Your task to perform on an android device: set default search engine in the chrome app Image 0: 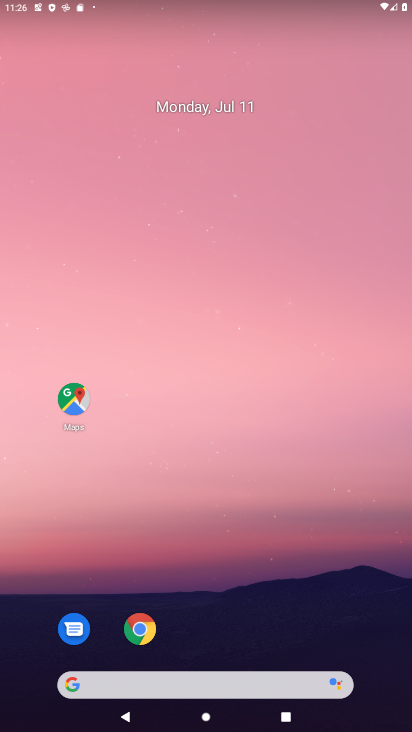
Step 0: click (155, 648)
Your task to perform on an android device: set default search engine in the chrome app Image 1: 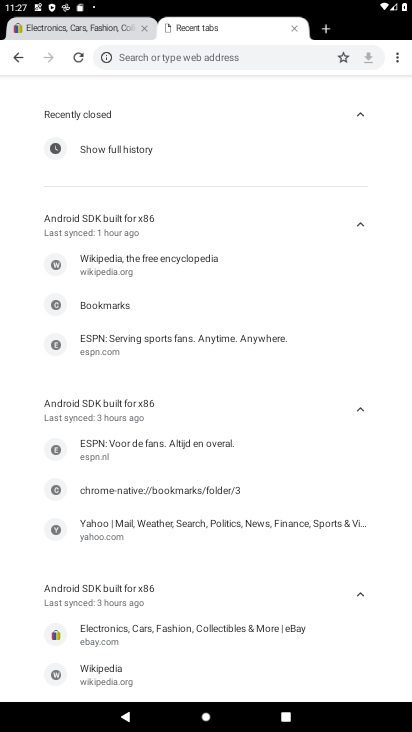
Step 1: click (400, 62)
Your task to perform on an android device: set default search engine in the chrome app Image 2: 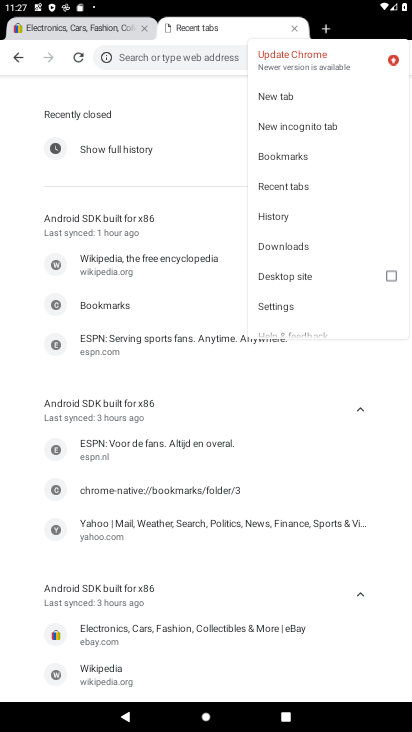
Step 2: click (301, 306)
Your task to perform on an android device: set default search engine in the chrome app Image 3: 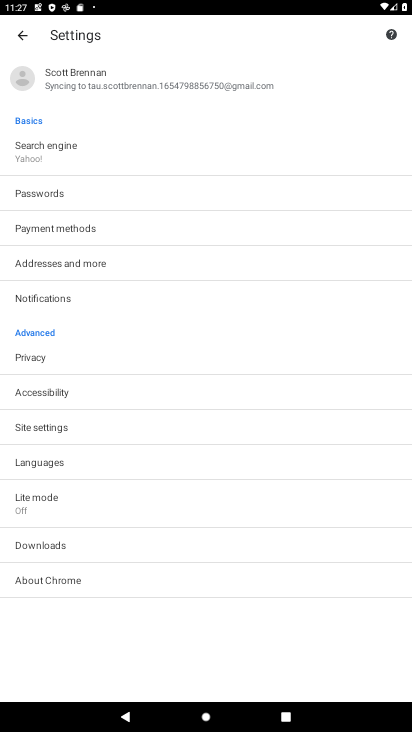
Step 3: click (86, 159)
Your task to perform on an android device: set default search engine in the chrome app Image 4: 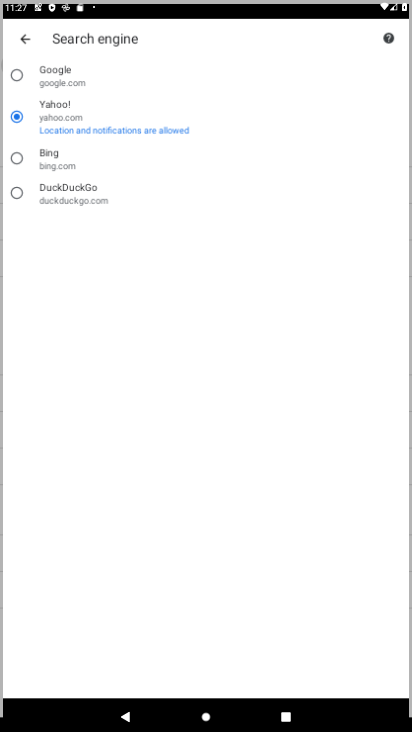
Step 4: click (33, 145)
Your task to perform on an android device: set default search engine in the chrome app Image 5: 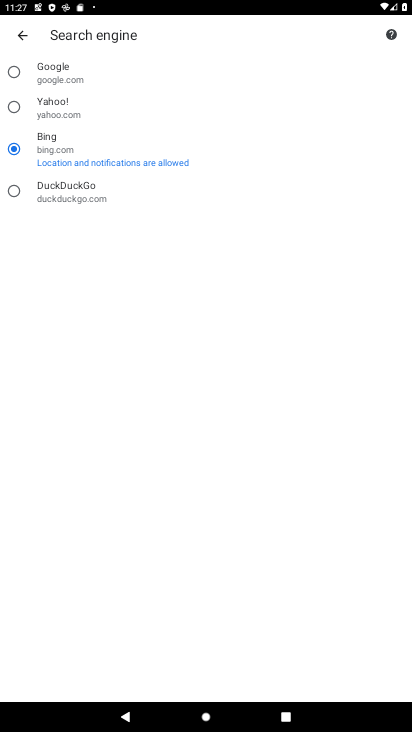
Step 5: task complete